Your task to perform on an android device: Open the Play Movies app and select the watchlist tab. Image 0: 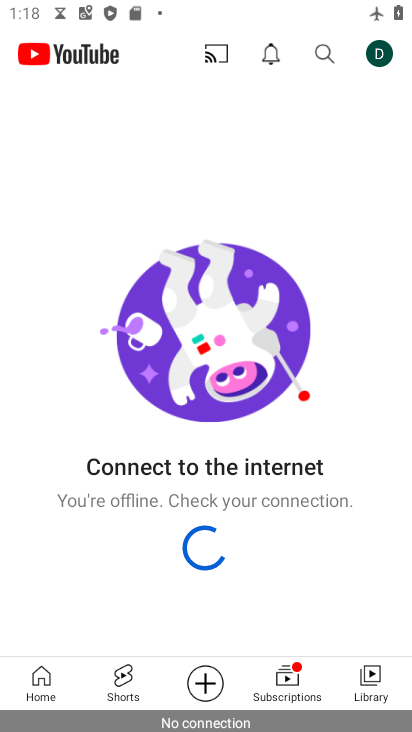
Step 0: press home button
Your task to perform on an android device: Open the Play Movies app and select the watchlist tab. Image 1: 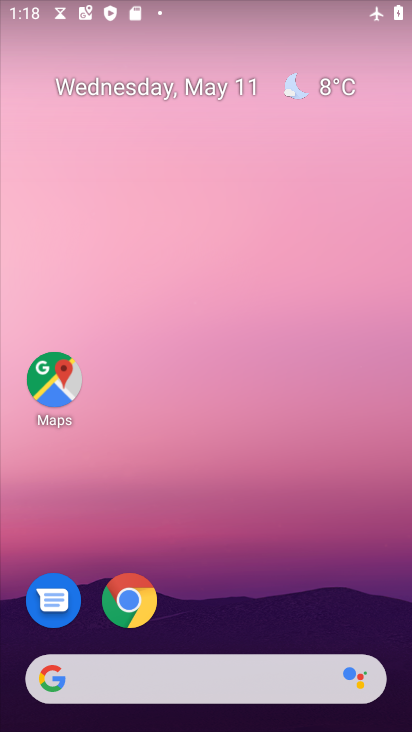
Step 1: drag from (250, 601) to (219, 7)
Your task to perform on an android device: Open the Play Movies app and select the watchlist tab. Image 2: 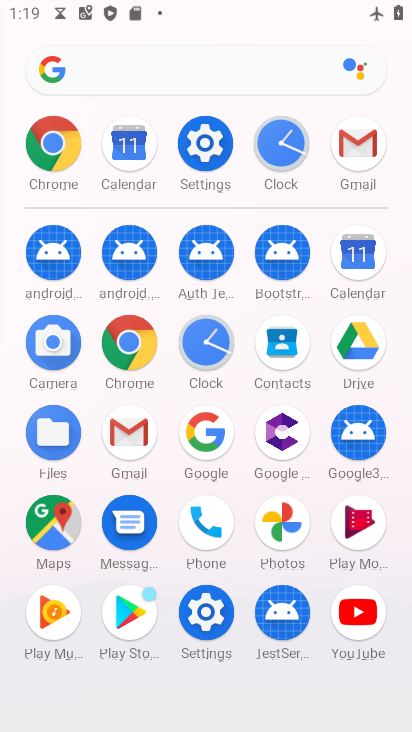
Step 2: click (369, 521)
Your task to perform on an android device: Open the Play Movies app and select the watchlist tab. Image 3: 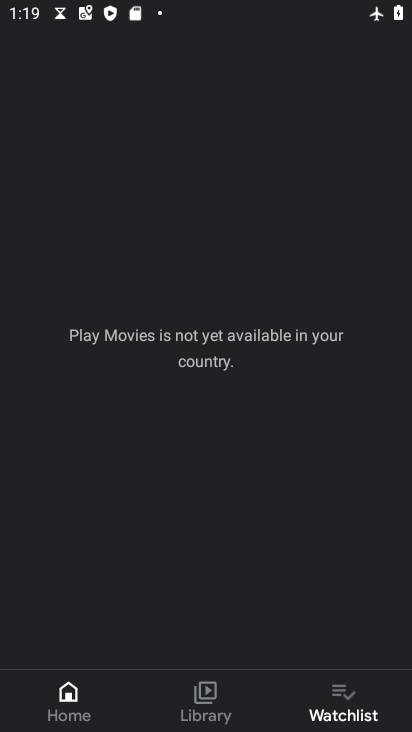
Step 3: task complete